Your task to perform on an android device: Go to Maps Image 0: 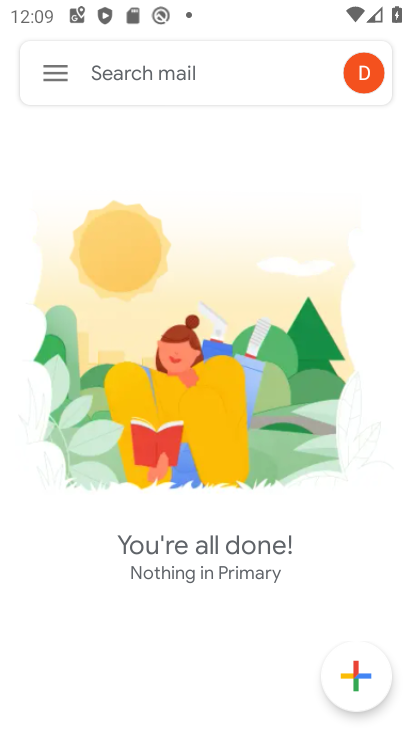
Step 0: press home button
Your task to perform on an android device: Go to Maps Image 1: 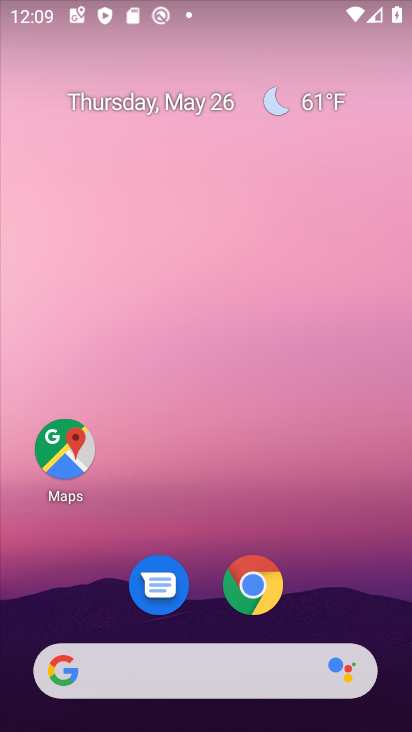
Step 1: click (65, 448)
Your task to perform on an android device: Go to Maps Image 2: 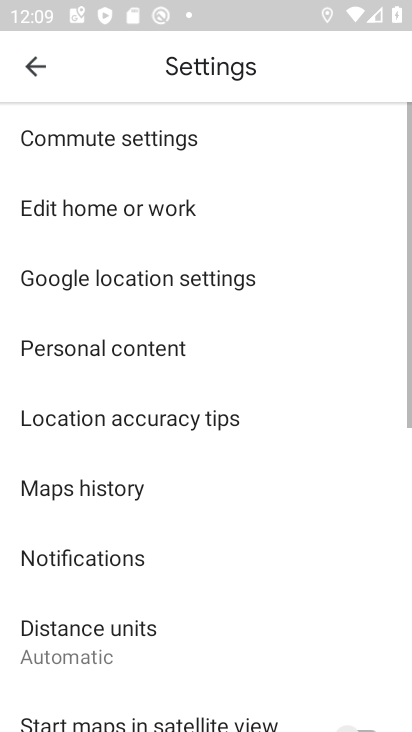
Step 2: click (35, 71)
Your task to perform on an android device: Go to Maps Image 3: 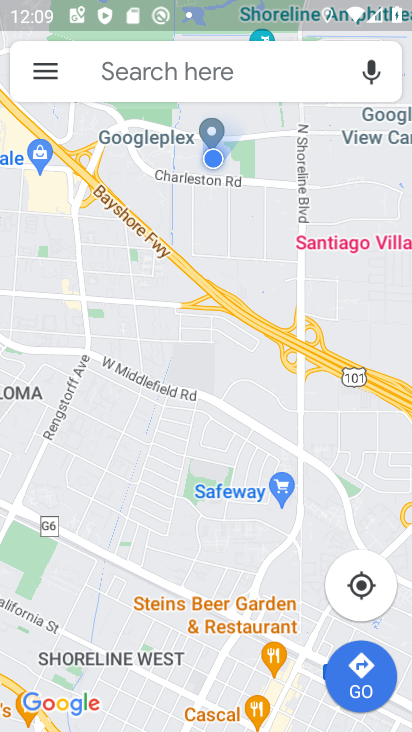
Step 3: click (37, 58)
Your task to perform on an android device: Go to Maps Image 4: 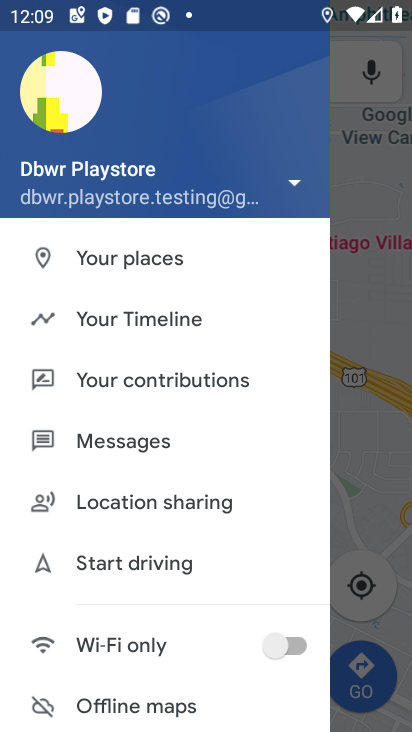
Step 4: click (364, 253)
Your task to perform on an android device: Go to Maps Image 5: 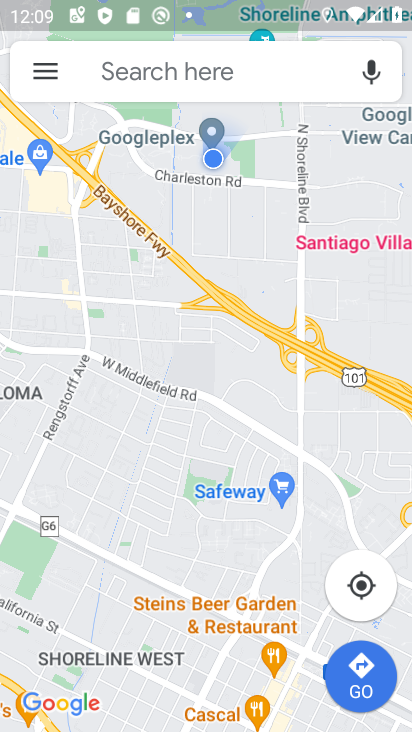
Step 5: task complete